Your task to perform on an android device: Go to Google Image 0: 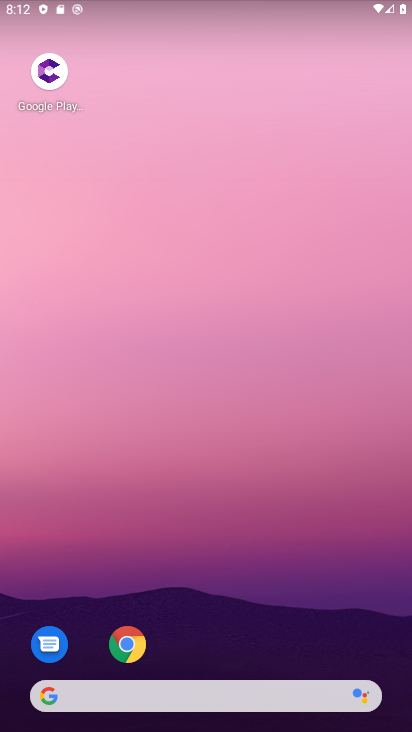
Step 0: drag from (219, 691) to (194, 313)
Your task to perform on an android device: Go to Google Image 1: 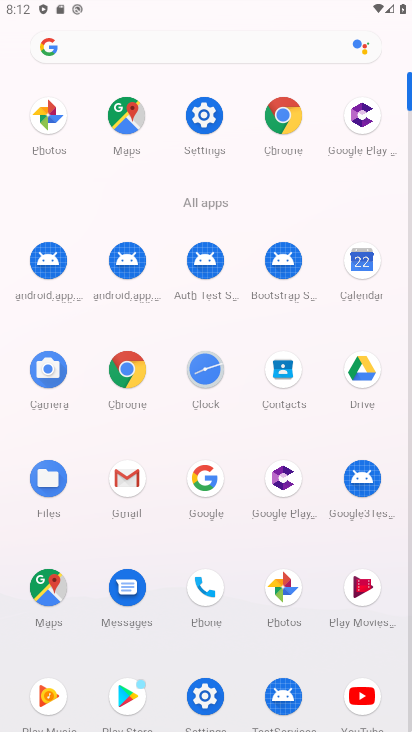
Step 1: click (204, 468)
Your task to perform on an android device: Go to Google Image 2: 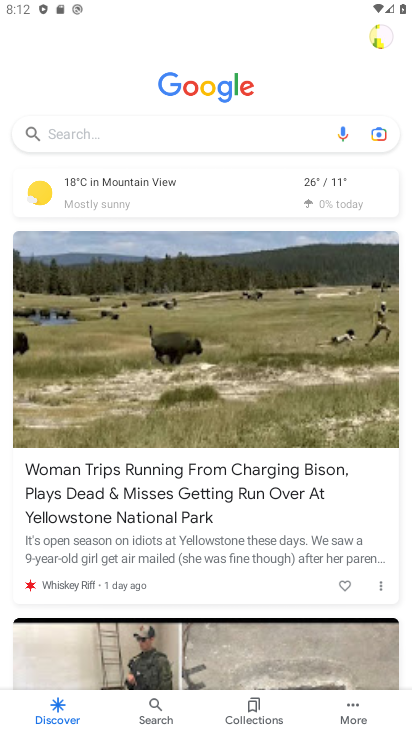
Step 2: task complete